Your task to perform on an android device: Check the news Image 0: 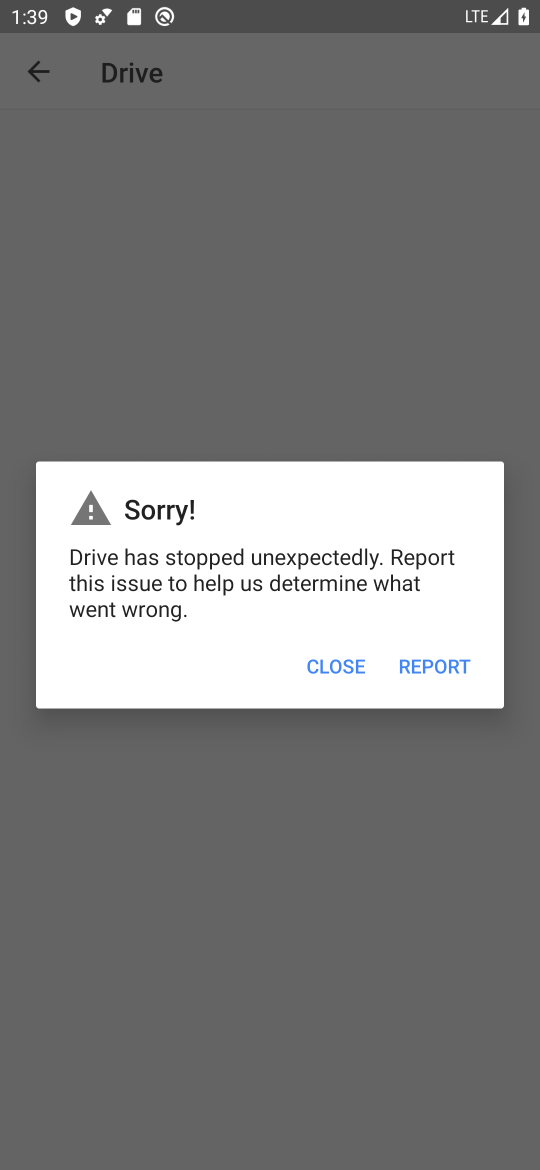
Step 0: press home button
Your task to perform on an android device: Check the news Image 1: 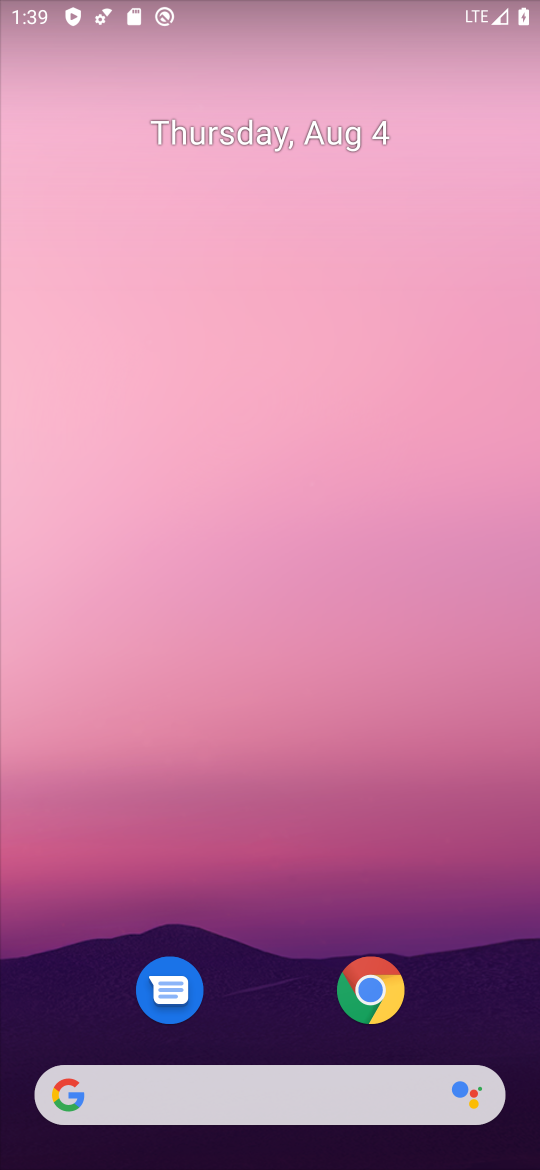
Step 1: drag from (287, 1048) to (310, 130)
Your task to perform on an android device: Check the news Image 2: 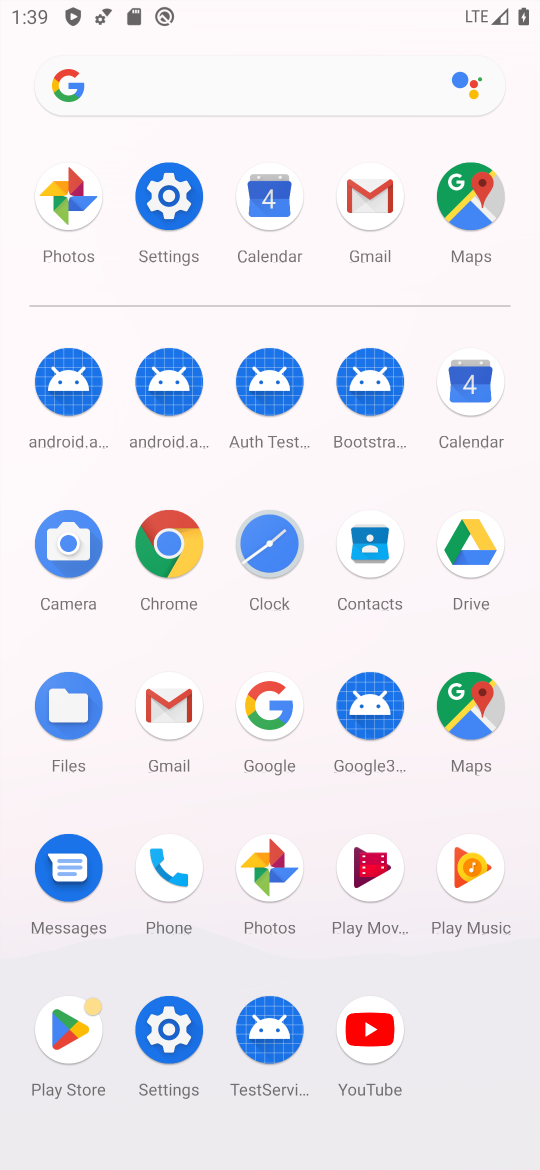
Step 2: click (293, 90)
Your task to perform on an android device: Check the news Image 3: 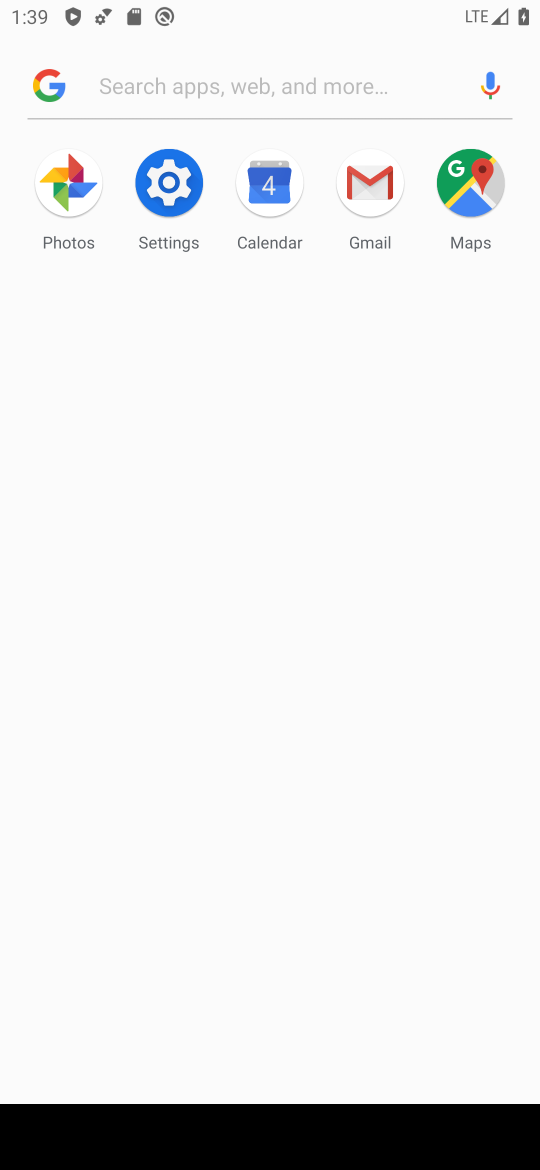
Step 3: type "news"
Your task to perform on an android device: Check the news Image 4: 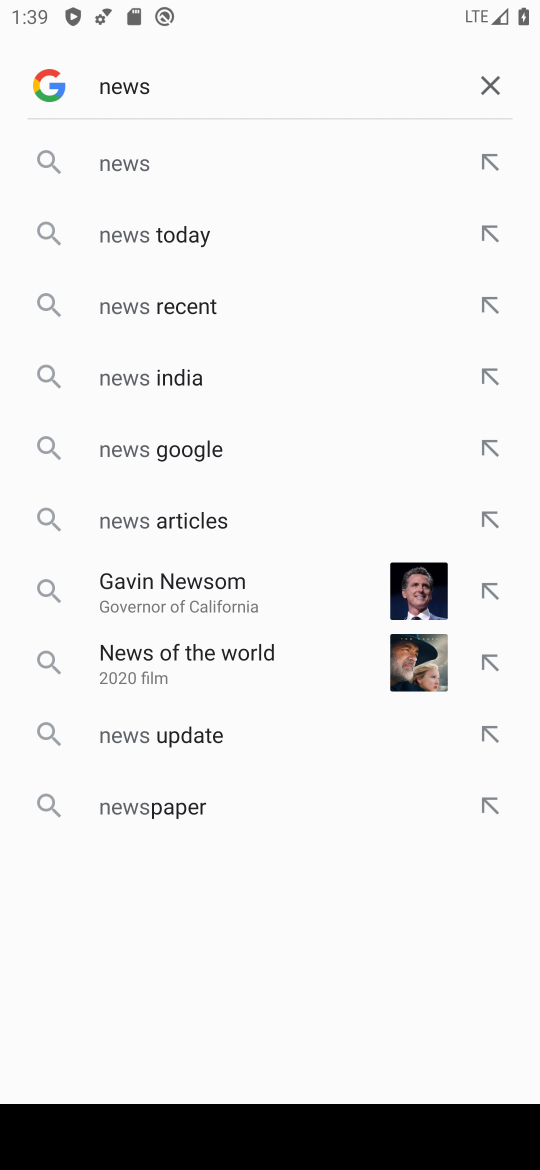
Step 4: click (142, 177)
Your task to perform on an android device: Check the news Image 5: 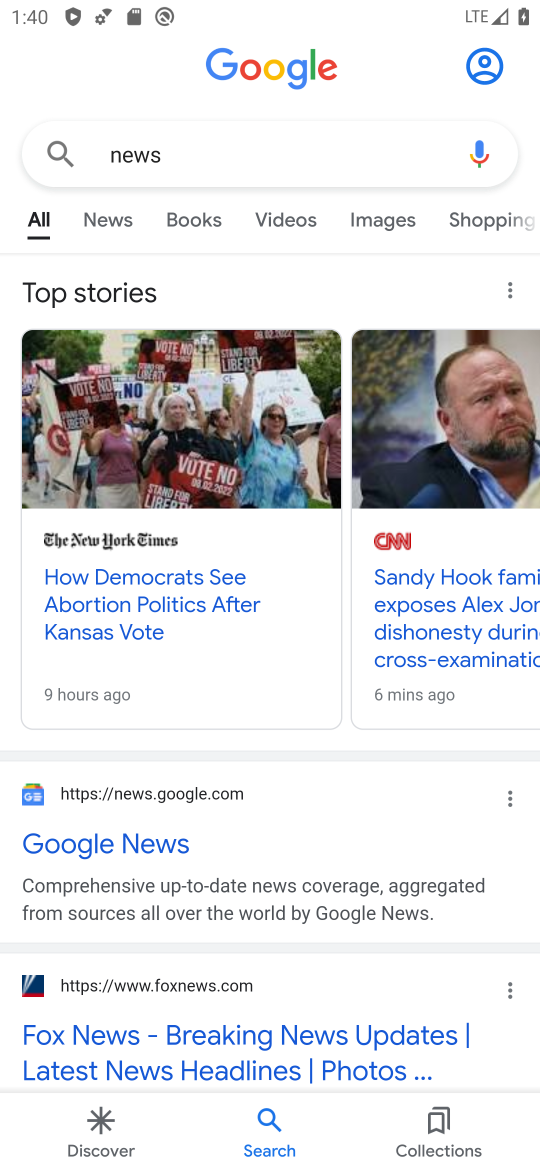
Step 5: task complete